Your task to perform on an android device: What's the weather going to be tomorrow? Image 0: 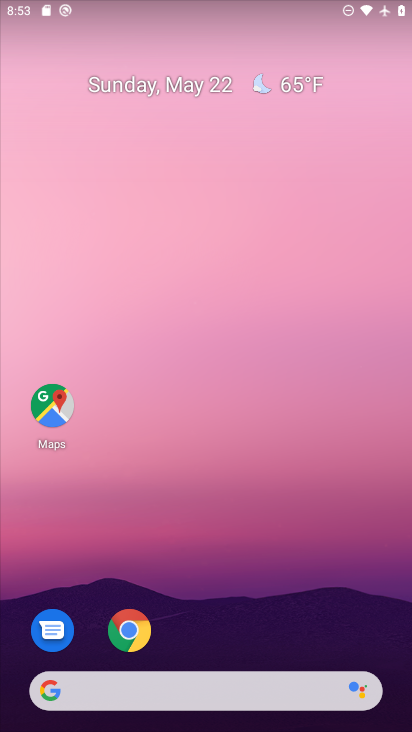
Step 0: click (53, 691)
Your task to perform on an android device: What's the weather going to be tomorrow? Image 1: 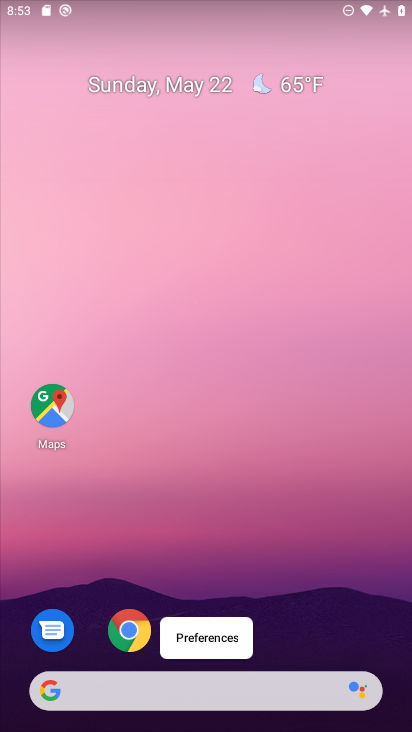
Step 1: click (54, 687)
Your task to perform on an android device: What's the weather going to be tomorrow? Image 2: 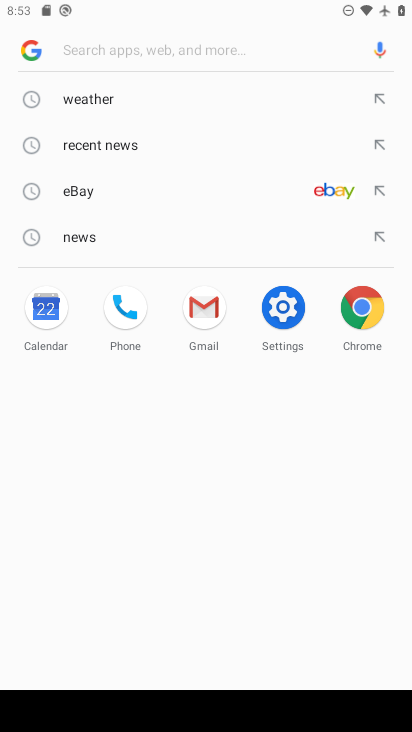
Step 2: click (98, 98)
Your task to perform on an android device: What's the weather going to be tomorrow? Image 3: 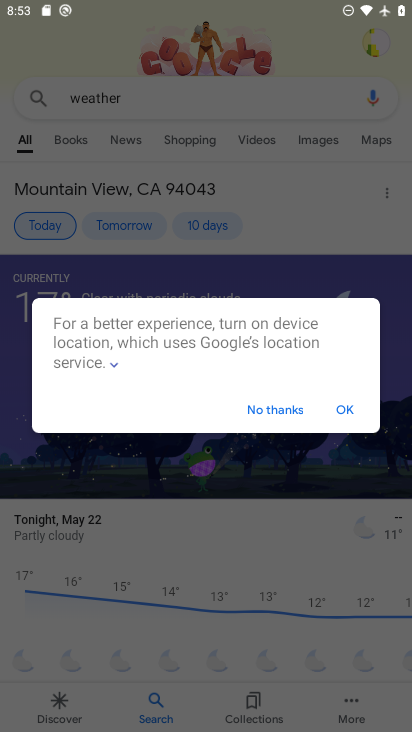
Step 3: click (130, 225)
Your task to perform on an android device: What's the weather going to be tomorrow? Image 4: 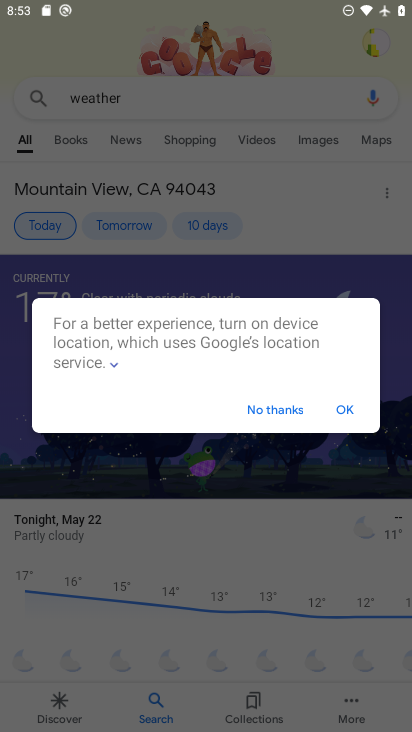
Step 4: click (350, 411)
Your task to perform on an android device: What's the weather going to be tomorrow? Image 5: 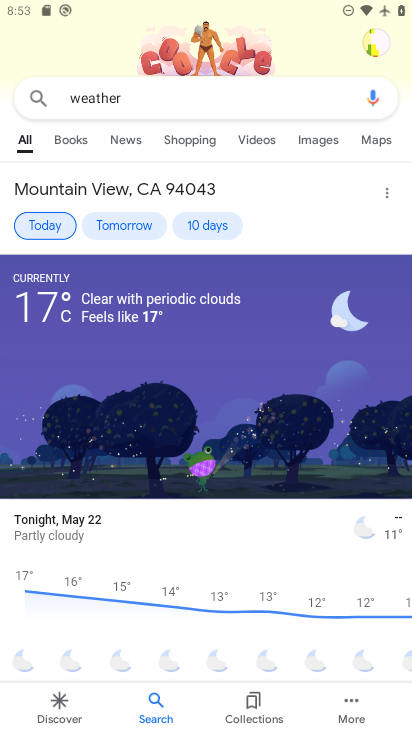
Step 5: click (135, 227)
Your task to perform on an android device: What's the weather going to be tomorrow? Image 6: 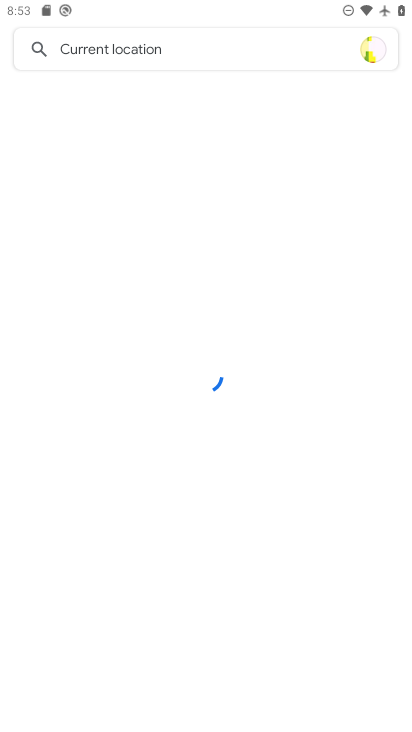
Step 6: click (128, 226)
Your task to perform on an android device: What's the weather going to be tomorrow? Image 7: 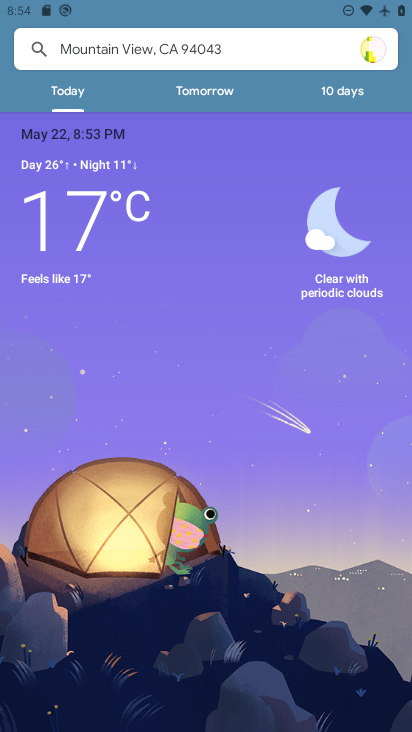
Step 7: click (204, 87)
Your task to perform on an android device: What's the weather going to be tomorrow? Image 8: 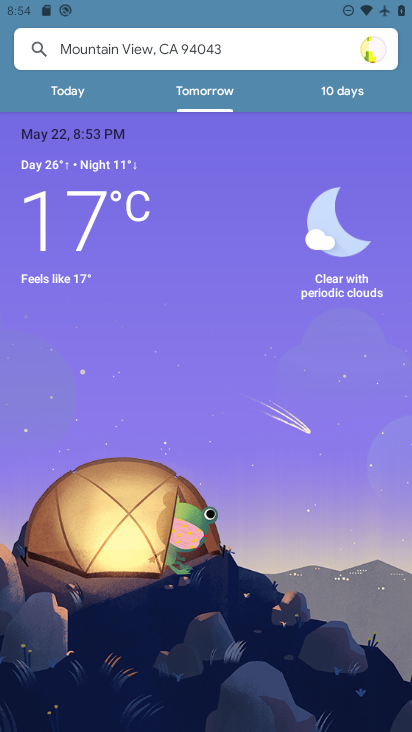
Step 8: click (218, 98)
Your task to perform on an android device: What's the weather going to be tomorrow? Image 9: 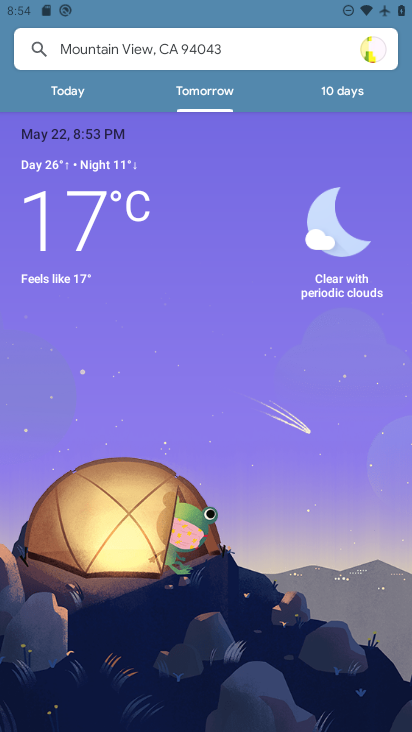
Step 9: drag from (187, 548) to (260, 453)
Your task to perform on an android device: What's the weather going to be tomorrow? Image 10: 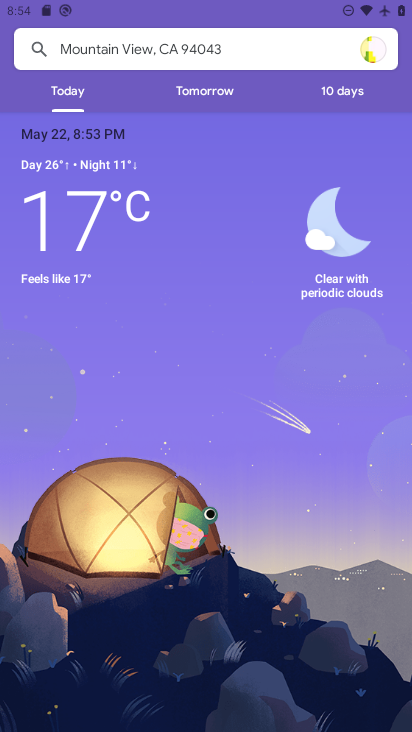
Step 10: click (191, 93)
Your task to perform on an android device: What's the weather going to be tomorrow? Image 11: 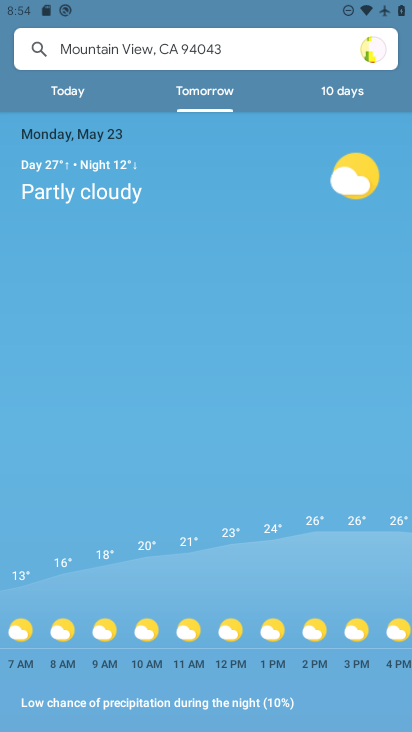
Step 11: task complete